Your task to perform on an android device: Go to calendar. Show me events next week Image 0: 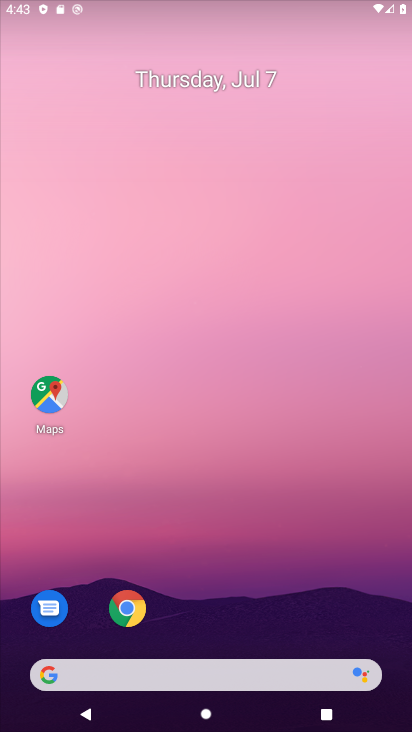
Step 0: drag from (204, 636) to (189, 71)
Your task to perform on an android device: Go to calendar. Show me events next week Image 1: 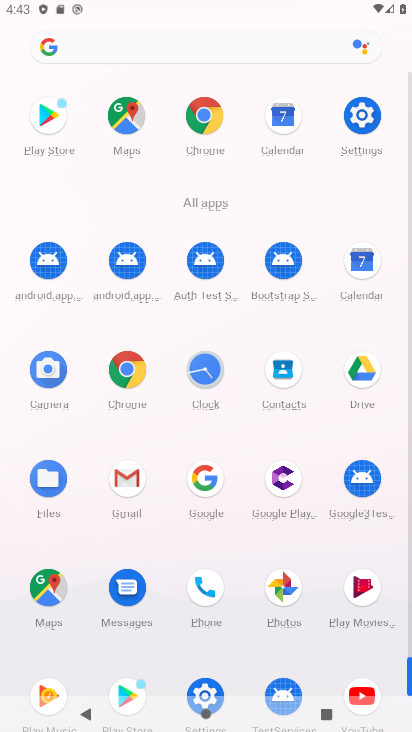
Step 1: click (125, 478)
Your task to perform on an android device: Go to calendar. Show me events next week Image 2: 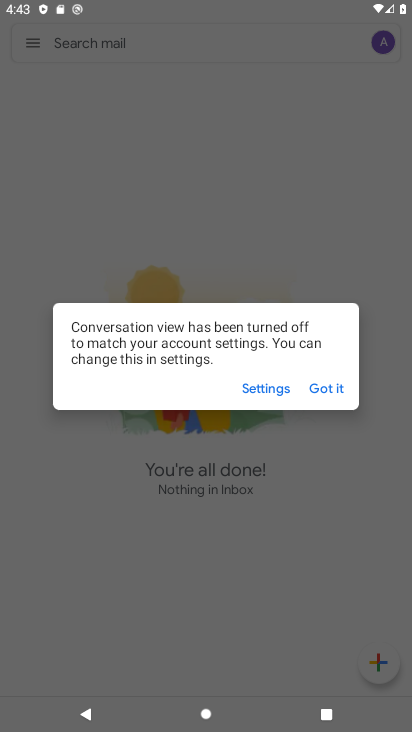
Step 2: press home button
Your task to perform on an android device: Go to calendar. Show me events next week Image 3: 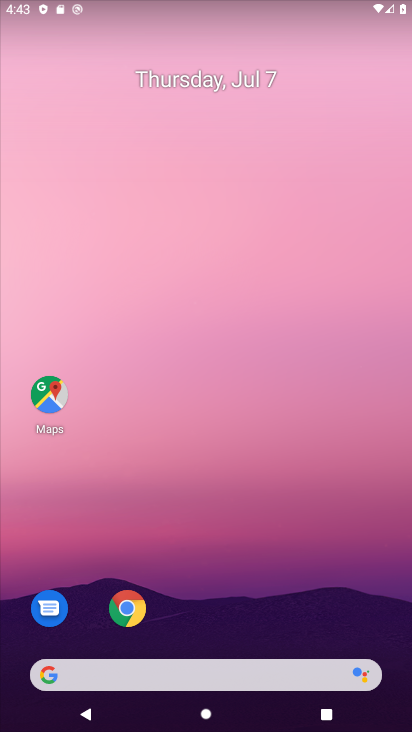
Step 3: drag from (194, 622) to (208, 26)
Your task to perform on an android device: Go to calendar. Show me events next week Image 4: 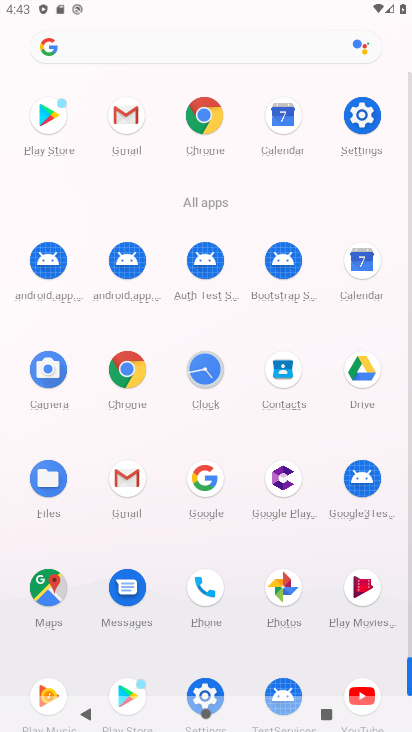
Step 4: click (362, 252)
Your task to perform on an android device: Go to calendar. Show me events next week Image 5: 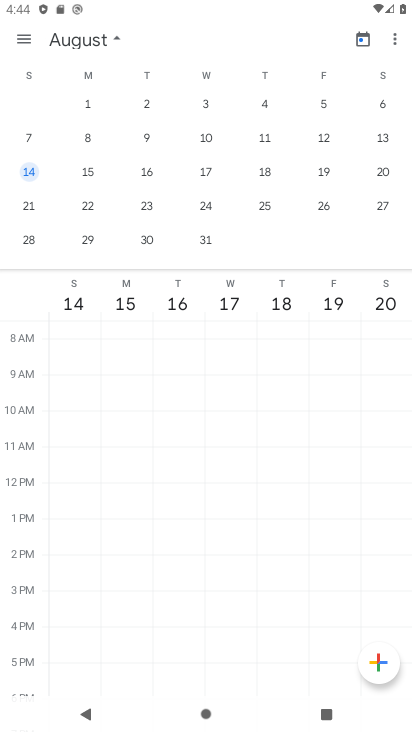
Step 5: click (118, 35)
Your task to perform on an android device: Go to calendar. Show me events next week Image 6: 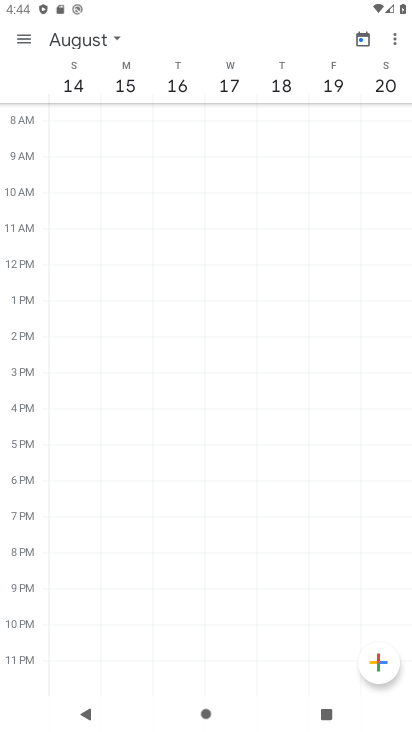
Step 6: click (115, 39)
Your task to perform on an android device: Go to calendar. Show me events next week Image 7: 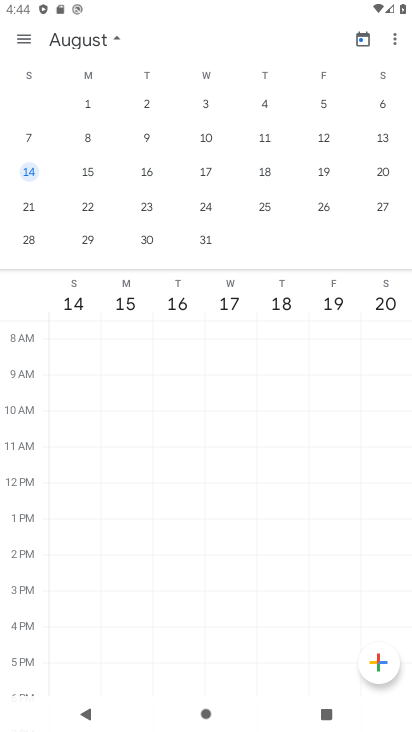
Step 7: drag from (42, 197) to (405, 206)
Your task to perform on an android device: Go to calendar. Show me events next week Image 8: 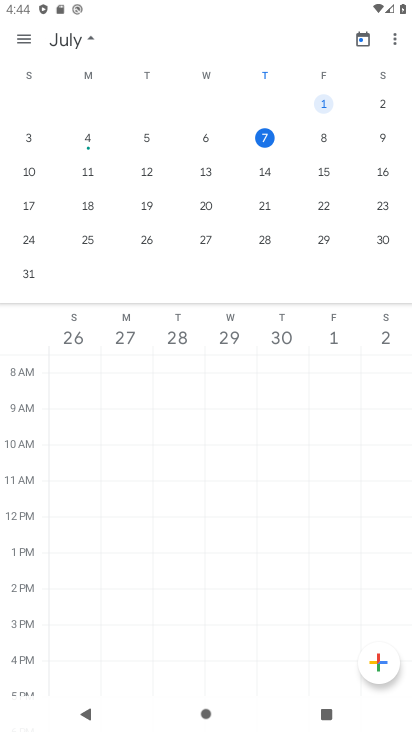
Step 8: click (24, 170)
Your task to perform on an android device: Go to calendar. Show me events next week Image 9: 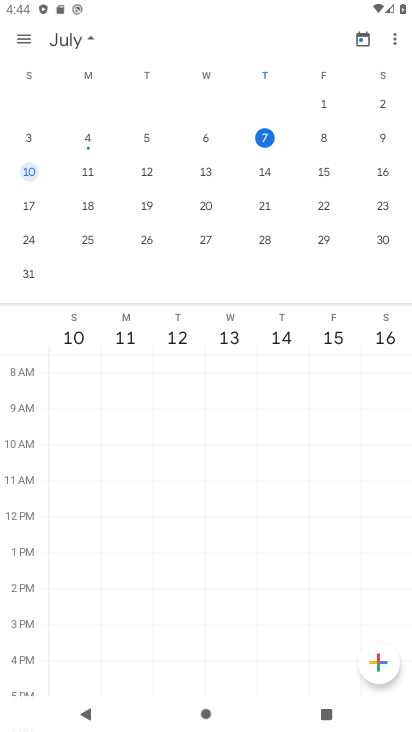
Step 9: task complete